Your task to perform on an android device: Open the calendar app, open the side menu, and click the "Day" option Image 0: 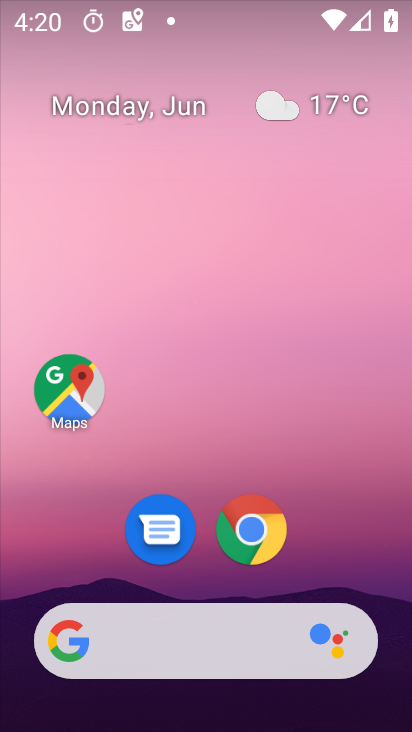
Step 0: drag from (319, 515) to (236, 79)
Your task to perform on an android device: Open the calendar app, open the side menu, and click the "Day" option Image 1: 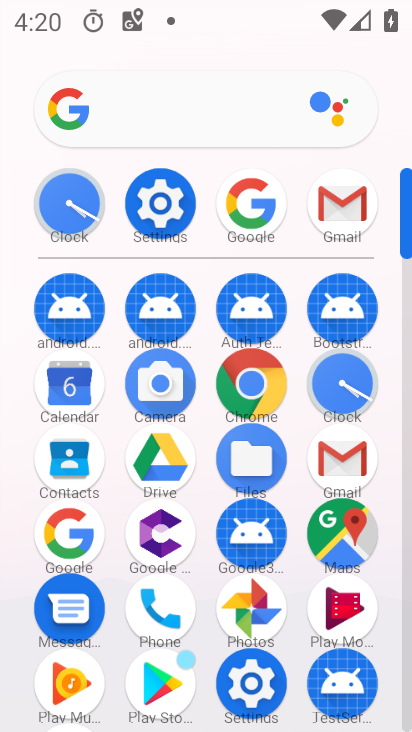
Step 1: click (75, 384)
Your task to perform on an android device: Open the calendar app, open the side menu, and click the "Day" option Image 2: 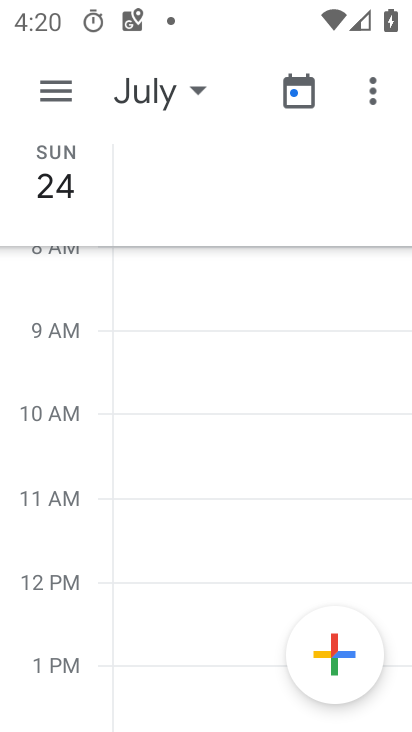
Step 2: click (42, 95)
Your task to perform on an android device: Open the calendar app, open the side menu, and click the "Day" option Image 3: 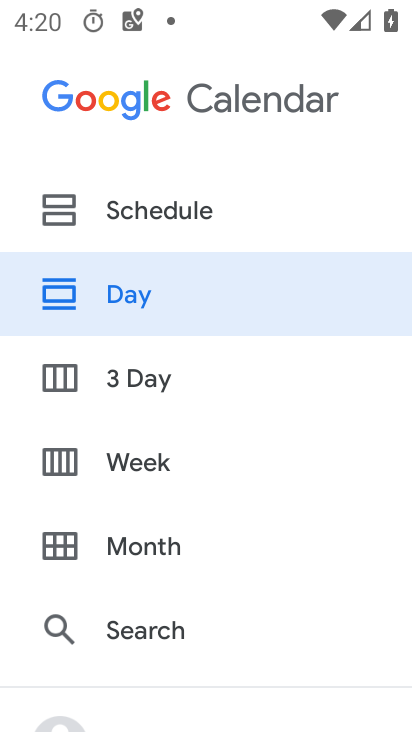
Step 3: click (84, 285)
Your task to perform on an android device: Open the calendar app, open the side menu, and click the "Day" option Image 4: 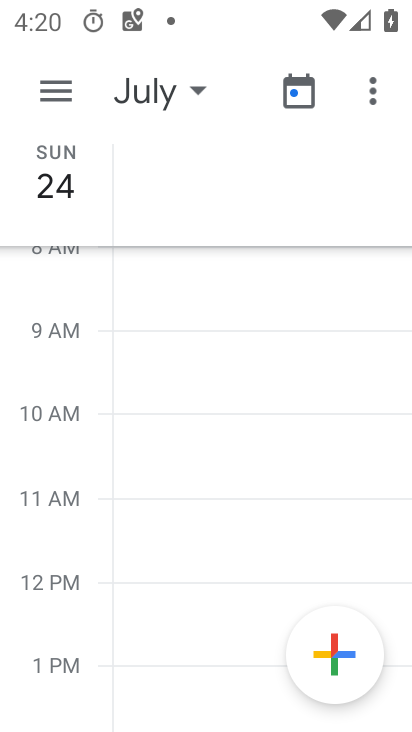
Step 4: task complete